Your task to perform on an android device: Open calendar and show me the second week of next month Image 0: 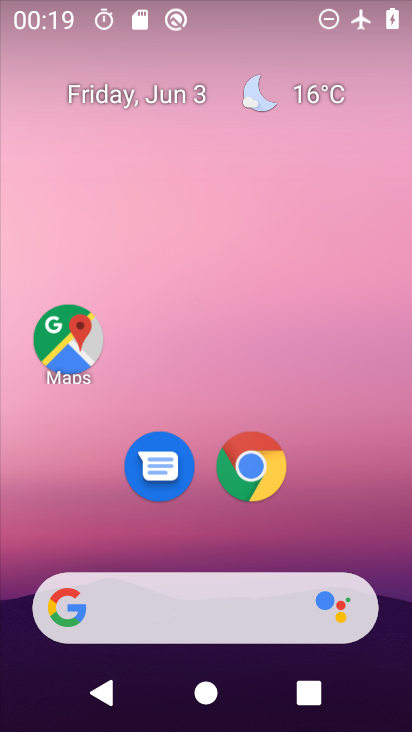
Step 0: drag from (195, 535) to (186, 260)
Your task to perform on an android device: Open calendar and show me the second week of next month Image 1: 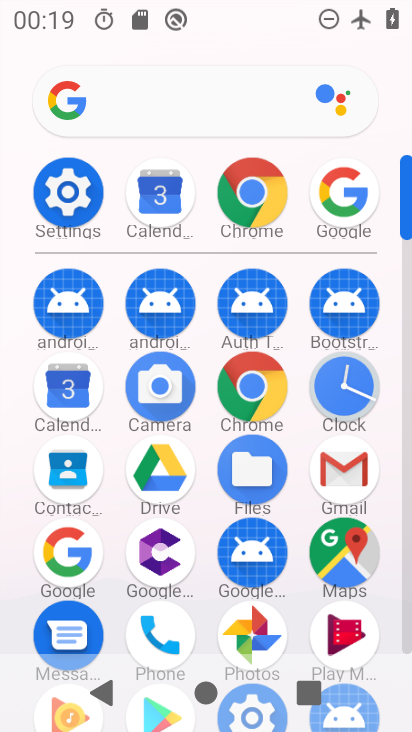
Step 1: click (155, 212)
Your task to perform on an android device: Open calendar and show me the second week of next month Image 2: 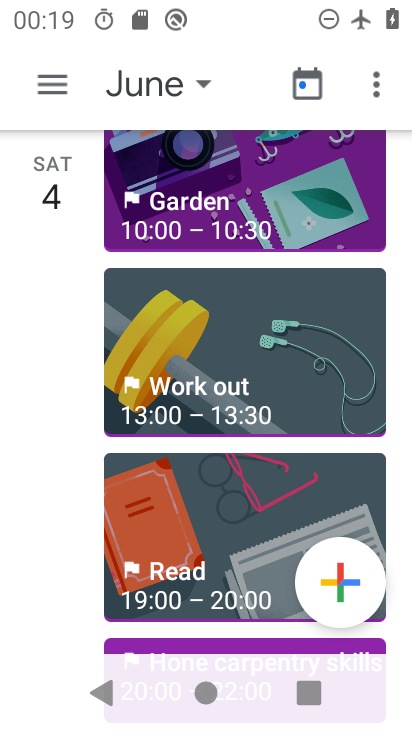
Step 2: click (201, 86)
Your task to perform on an android device: Open calendar and show me the second week of next month Image 3: 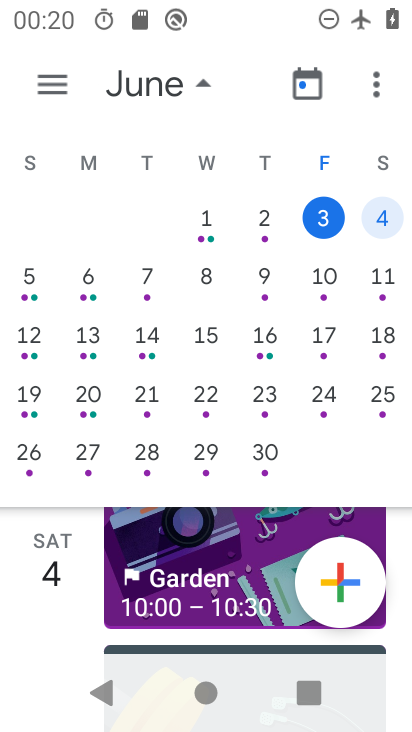
Step 3: drag from (357, 282) to (60, 292)
Your task to perform on an android device: Open calendar and show me the second week of next month Image 4: 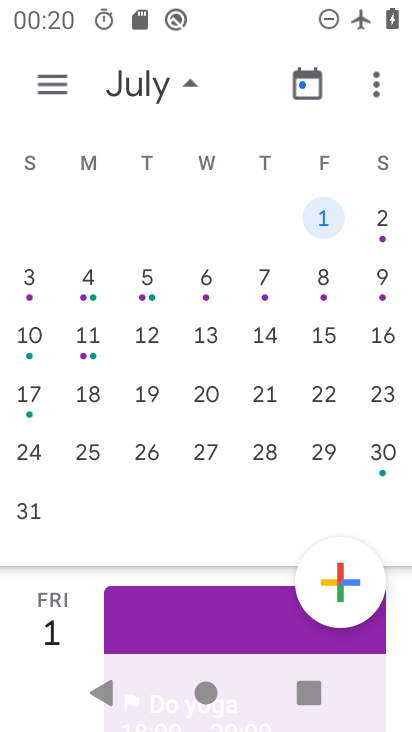
Step 4: click (21, 288)
Your task to perform on an android device: Open calendar and show me the second week of next month Image 5: 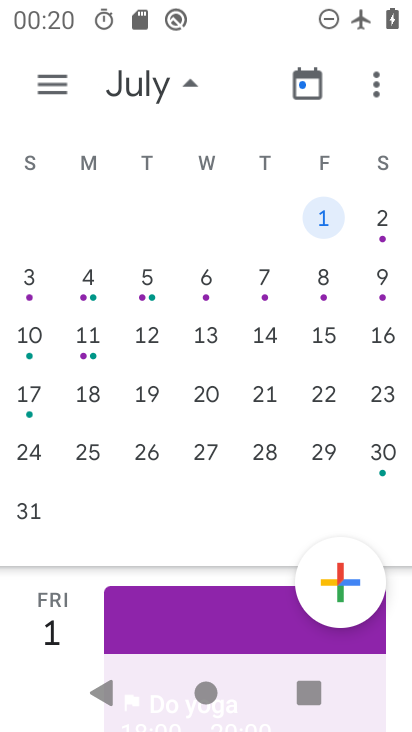
Step 5: click (21, 281)
Your task to perform on an android device: Open calendar and show me the second week of next month Image 6: 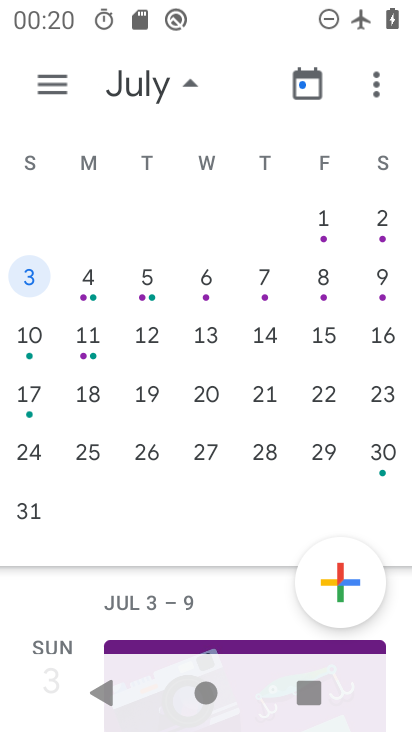
Step 6: click (94, 276)
Your task to perform on an android device: Open calendar and show me the second week of next month Image 7: 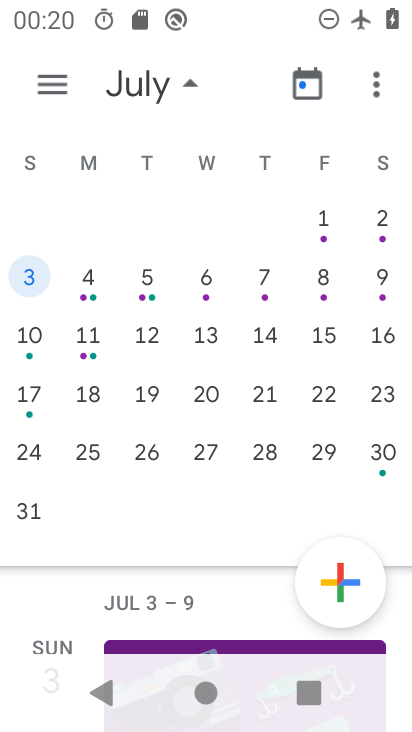
Step 7: click (134, 276)
Your task to perform on an android device: Open calendar and show me the second week of next month Image 8: 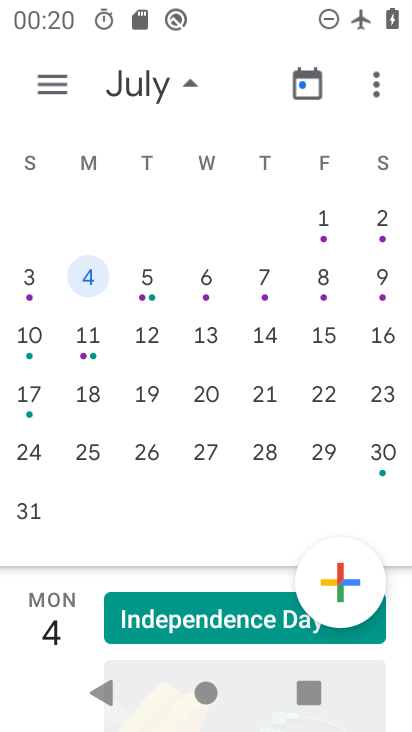
Step 8: click (159, 275)
Your task to perform on an android device: Open calendar and show me the second week of next month Image 9: 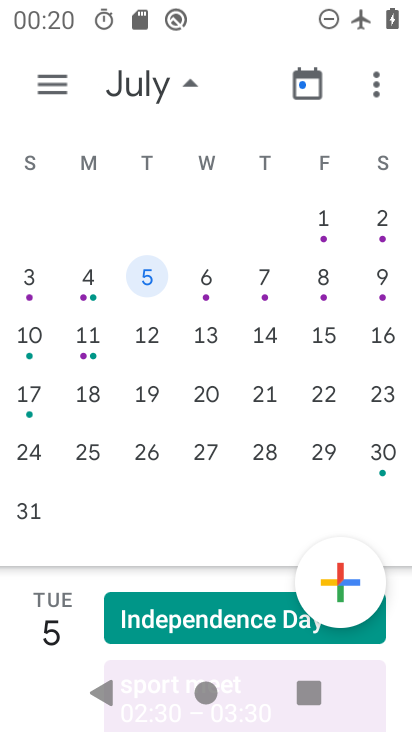
Step 9: task complete